Your task to perform on an android device: turn off improve location accuracy Image 0: 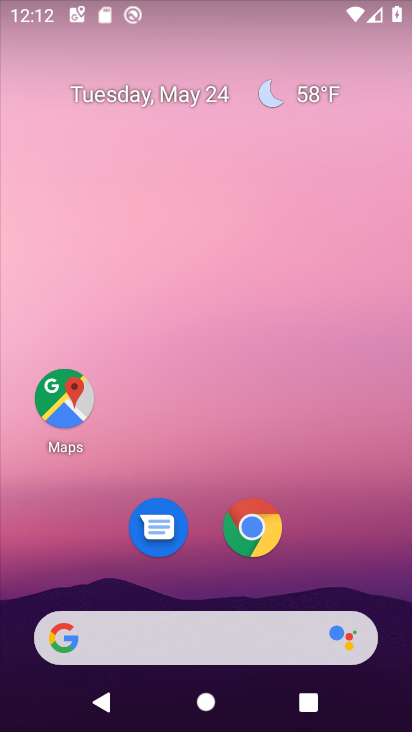
Step 0: drag from (349, 580) to (301, 159)
Your task to perform on an android device: turn off improve location accuracy Image 1: 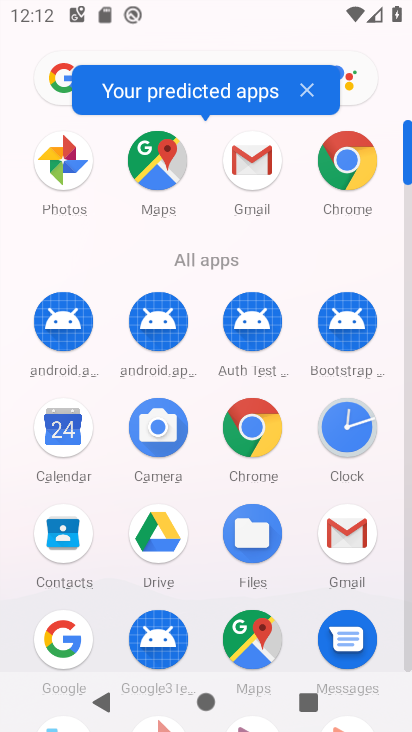
Step 1: click (405, 665)
Your task to perform on an android device: turn off improve location accuracy Image 2: 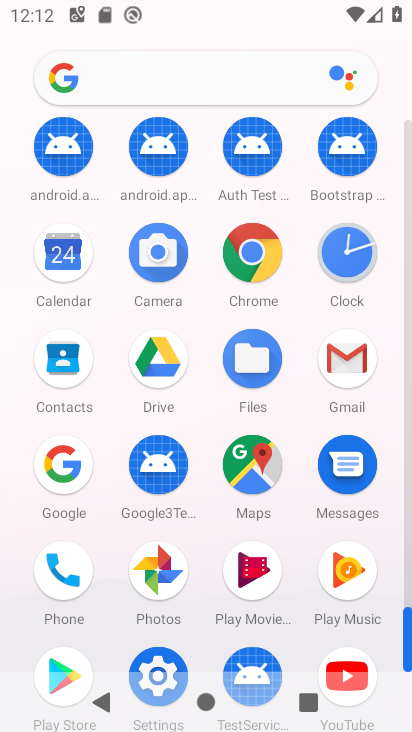
Step 2: click (156, 665)
Your task to perform on an android device: turn off improve location accuracy Image 3: 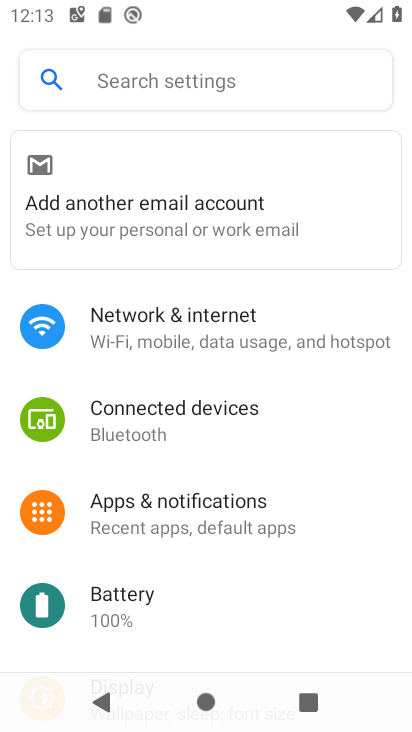
Step 3: drag from (218, 634) to (177, 91)
Your task to perform on an android device: turn off improve location accuracy Image 4: 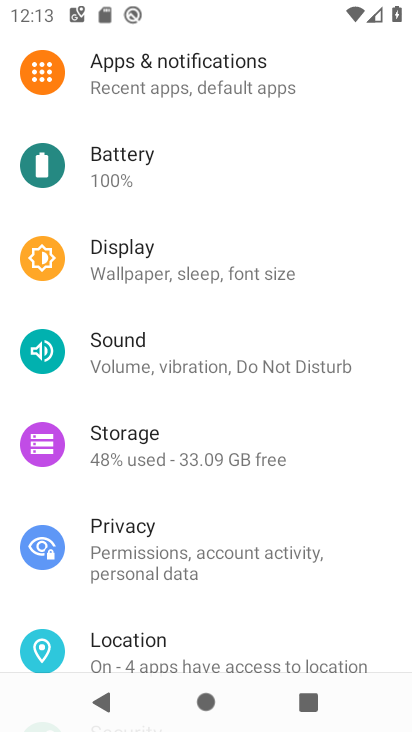
Step 4: click (250, 665)
Your task to perform on an android device: turn off improve location accuracy Image 5: 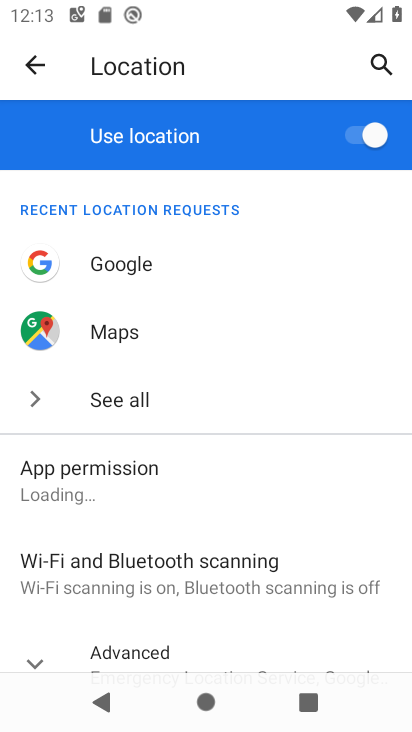
Step 5: drag from (302, 547) to (261, 119)
Your task to perform on an android device: turn off improve location accuracy Image 6: 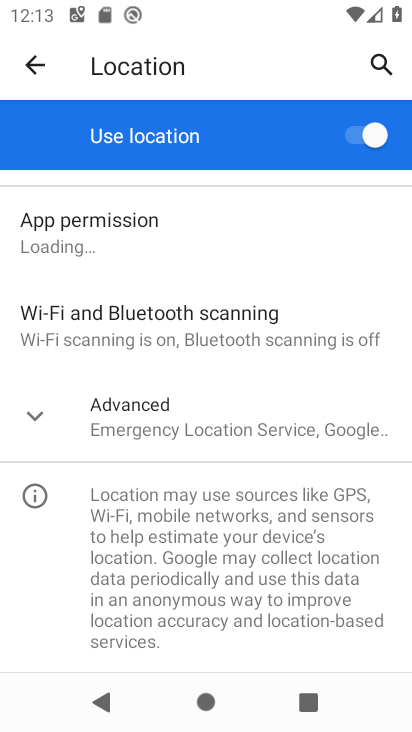
Step 6: click (267, 437)
Your task to perform on an android device: turn off improve location accuracy Image 7: 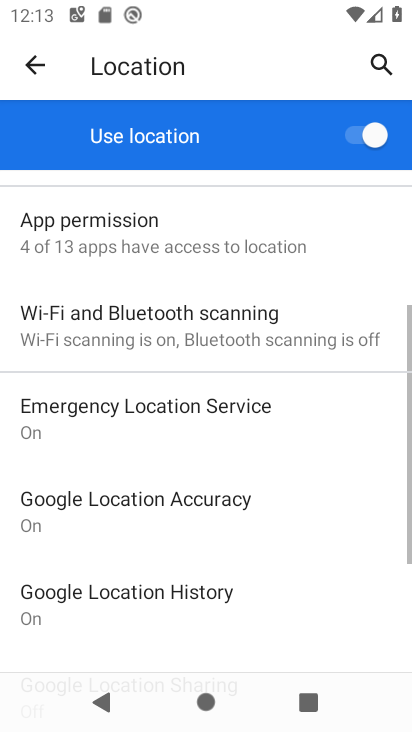
Step 7: click (284, 507)
Your task to perform on an android device: turn off improve location accuracy Image 8: 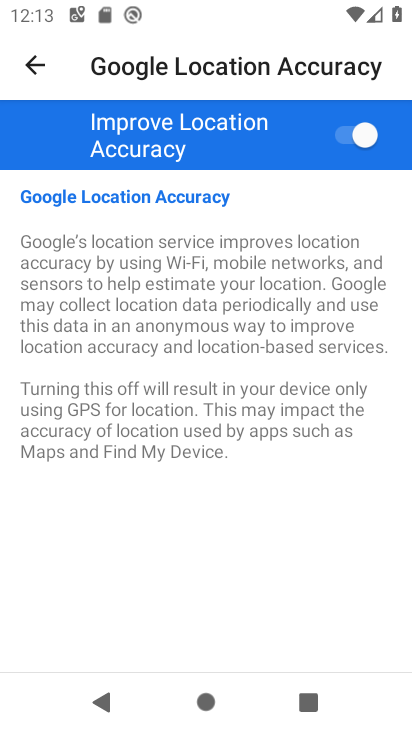
Step 8: click (371, 140)
Your task to perform on an android device: turn off improve location accuracy Image 9: 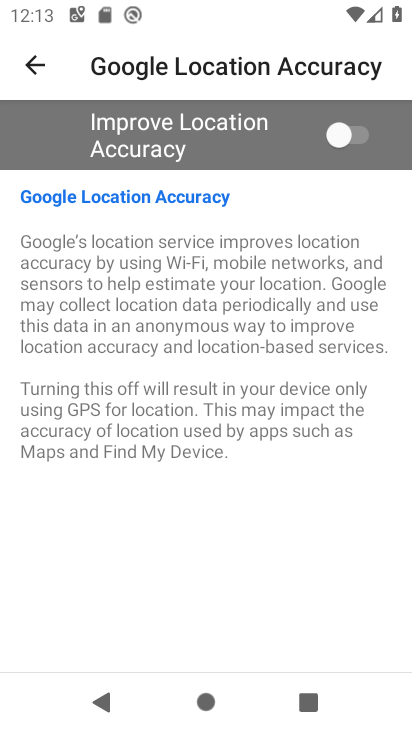
Step 9: task complete